Your task to perform on an android device: add a label to a message in the gmail app Image 0: 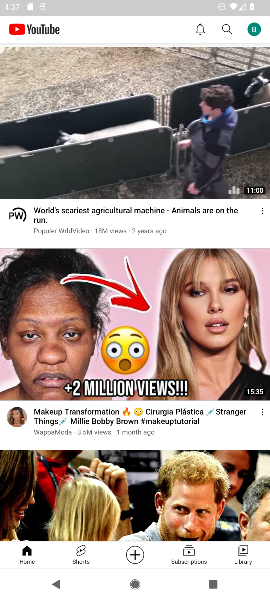
Step 0: press home button
Your task to perform on an android device: add a label to a message in the gmail app Image 1: 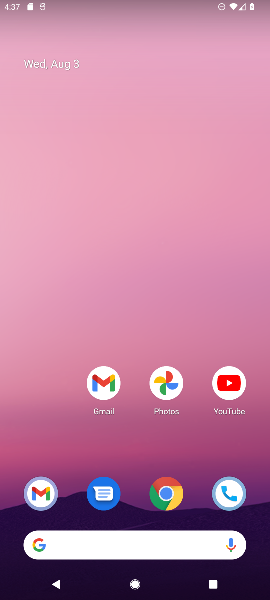
Step 1: drag from (56, 426) to (68, 83)
Your task to perform on an android device: add a label to a message in the gmail app Image 2: 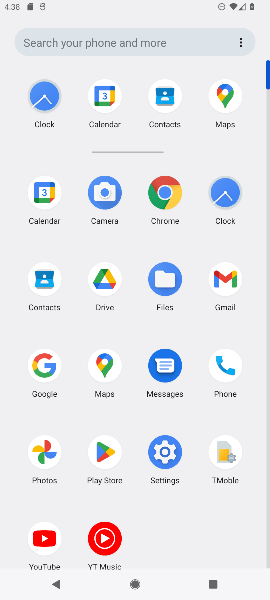
Step 2: click (229, 284)
Your task to perform on an android device: add a label to a message in the gmail app Image 3: 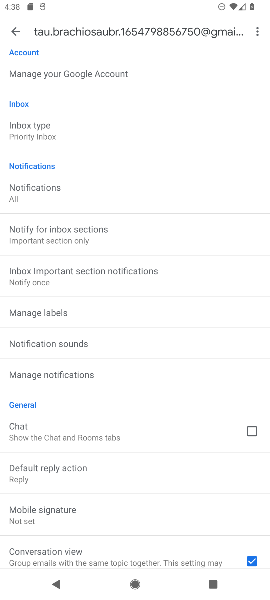
Step 3: press back button
Your task to perform on an android device: add a label to a message in the gmail app Image 4: 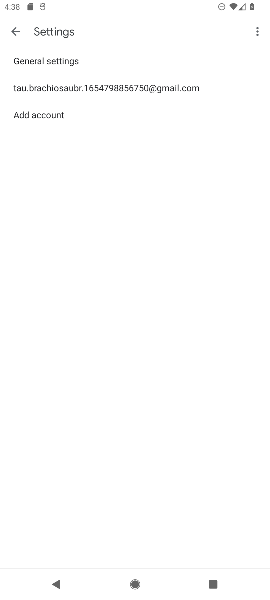
Step 4: press back button
Your task to perform on an android device: add a label to a message in the gmail app Image 5: 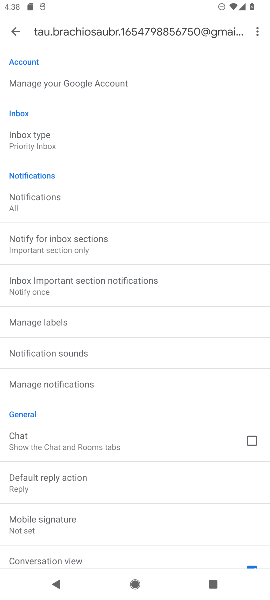
Step 5: press back button
Your task to perform on an android device: add a label to a message in the gmail app Image 6: 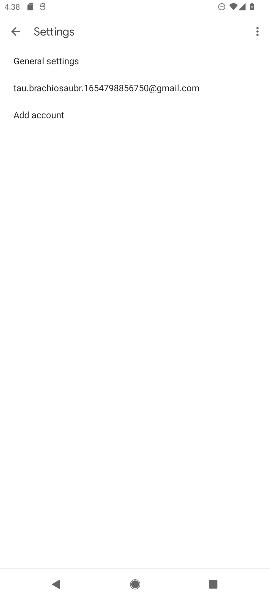
Step 6: press back button
Your task to perform on an android device: add a label to a message in the gmail app Image 7: 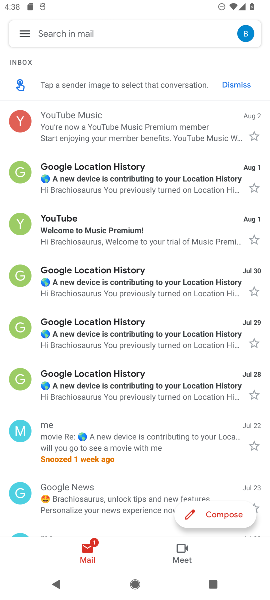
Step 7: click (165, 431)
Your task to perform on an android device: add a label to a message in the gmail app Image 8: 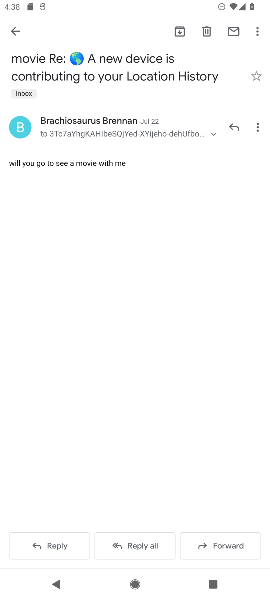
Step 8: click (22, 90)
Your task to perform on an android device: add a label to a message in the gmail app Image 9: 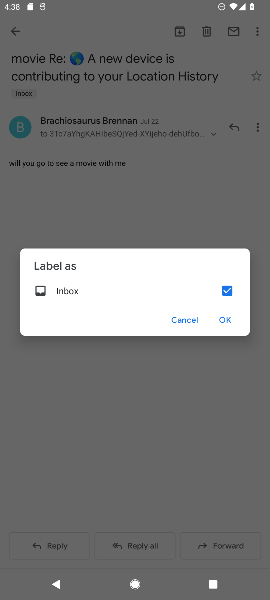
Step 9: click (227, 318)
Your task to perform on an android device: add a label to a message in the gmail app Image 10: 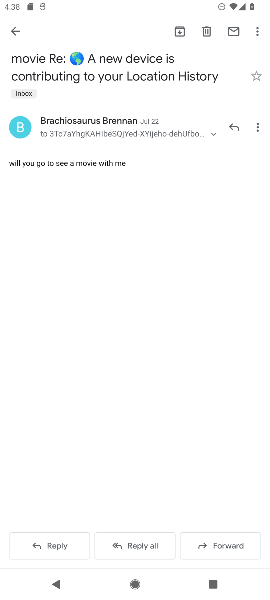
Step 10: click (16, 33)
Your task to perform on an android device: add a label to a message in the gmail app Image 11: 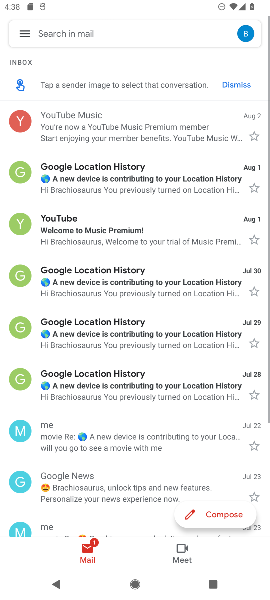
Step 11: click (136, 183)
Your task to perform on an android device: add a label to a message in the gmail app Image 12: 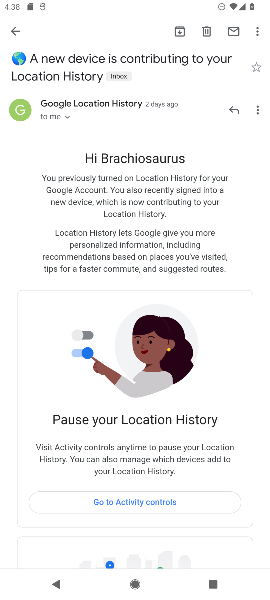
Step 12: click (120, 74)
Your task to perform on an android device: add a label to a message in the gmail app Image 13: 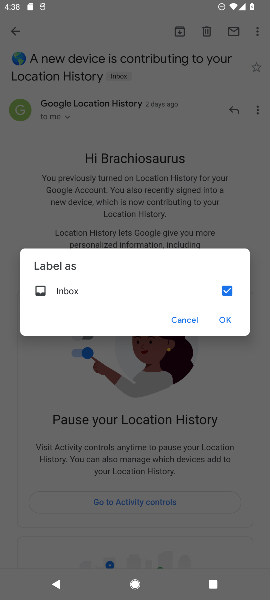
Step 13: click (221, 319)
Your task to perform on an android device: add a label to a message in the gmail app Image 14: 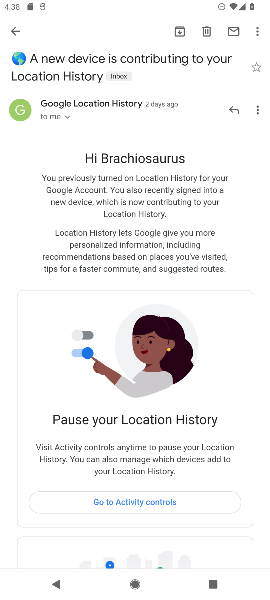
Step 14: click (15, 27)
Your task to perform on an android device: add a label to a message in the gmail app Image 15: 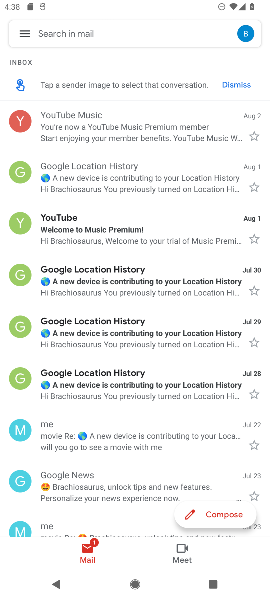
Step 15: click (157, 389)
Your task to perform on an android device: add a label to a message in the gmail app Image 16: 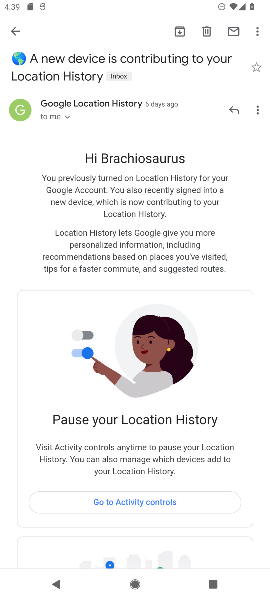
Step 16: click (259, 32)
Your task to perform on an android device: add a label to a message in the gmail app Image 17: 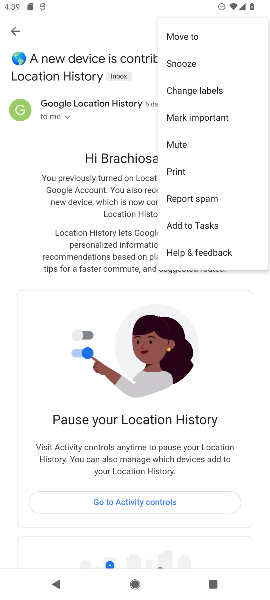
Step 17: task complete